Your task to perform on an android device: Open internet settings Image 0: 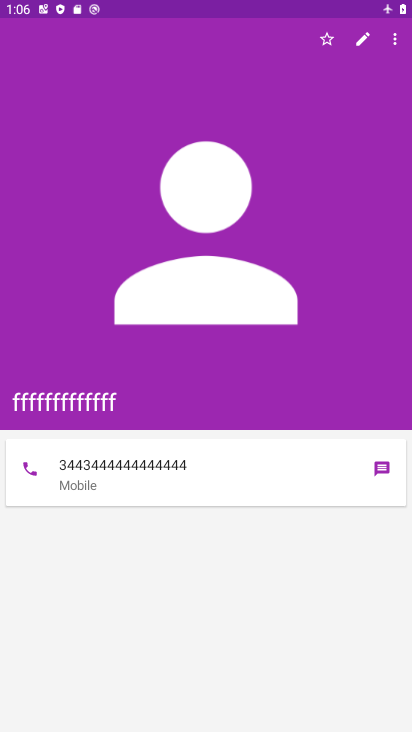
Step 0: press home button
Your task to perform on an android device: Open internet settings Image 1: 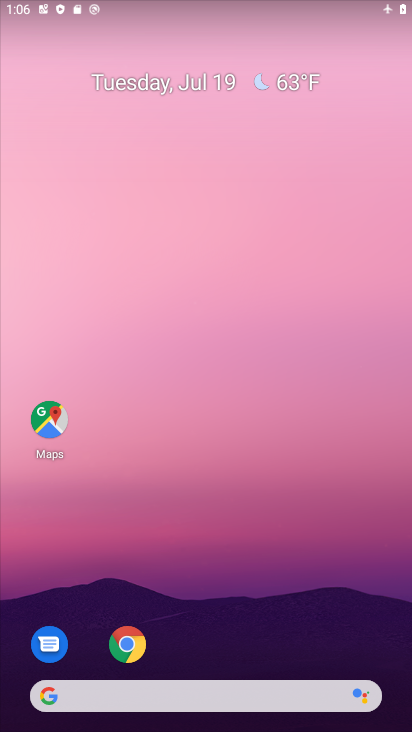
Step 1: drag from (225, 720) to (210, 125)
Your task to perform on an android device: Open internet settings Image 2: 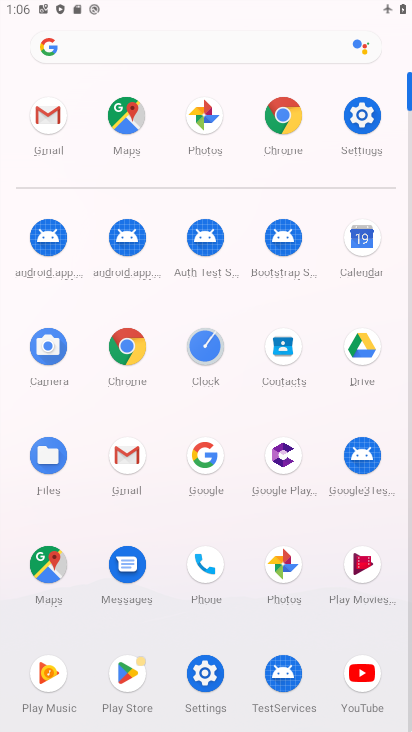
Step 2: click (356, 112)
Your task to perform on an android device: Open internet settings Image 3: 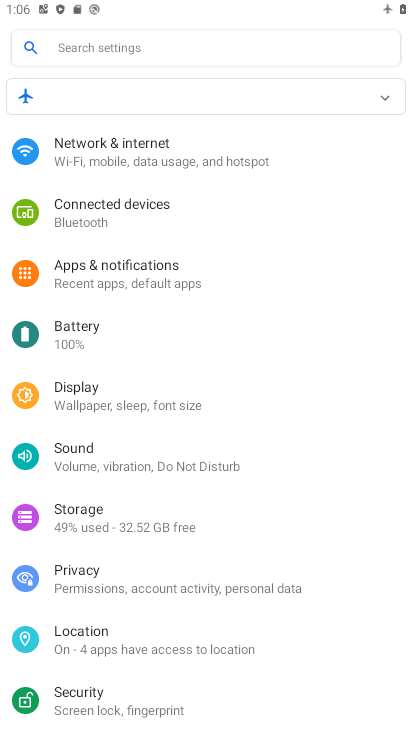
Step 3: click (132, 148)
Your task to perform on an android device: Open internet settings Image 4: 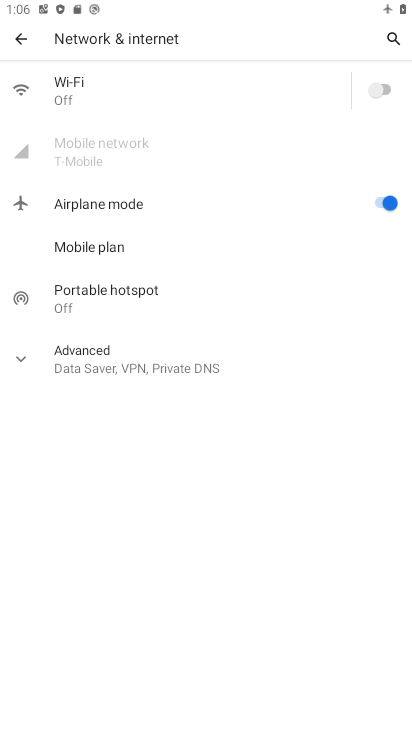
Step 4: task complete